Your task to perform on an android device: check data usage Image 0: 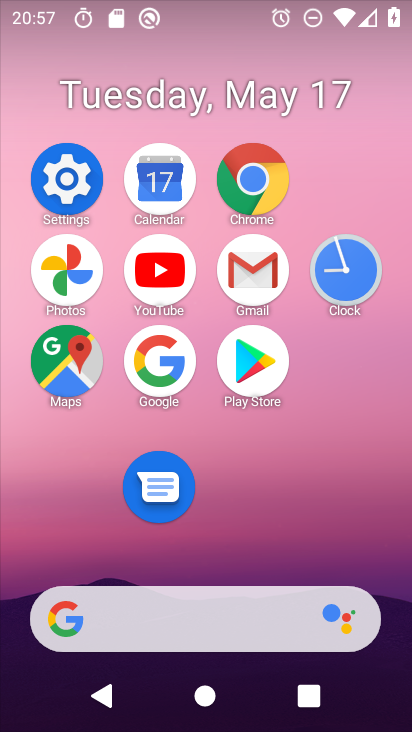
Step 0: click (59, 180)
Your task to perform on an android device: check data usage Image 1: 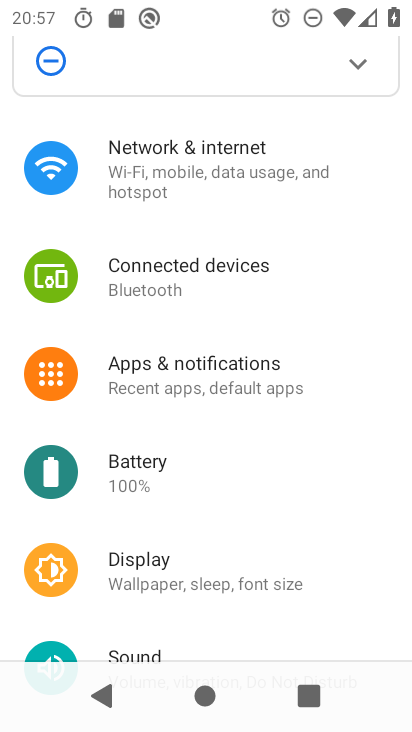
Step 1: click (200, 184)
Your task to perform on an android device: check data usage Image 2: 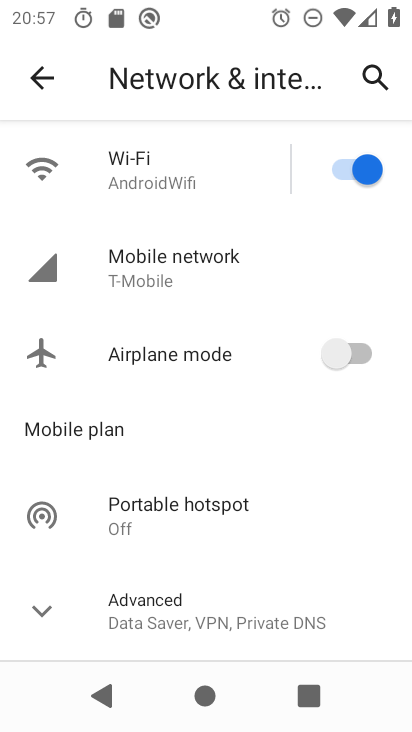
Step 2: click (229, 285)
Your task to perform on an android device: check data usage Image 3: 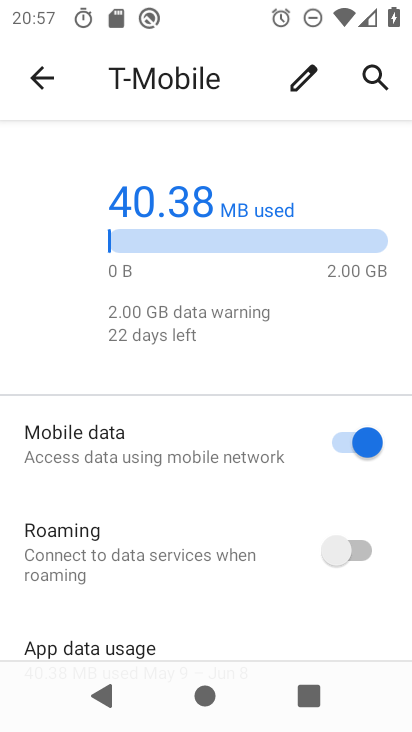
Step 3: task complete